Your task to perform on an android device: Open calendar and show me the third week of next month Image 0: 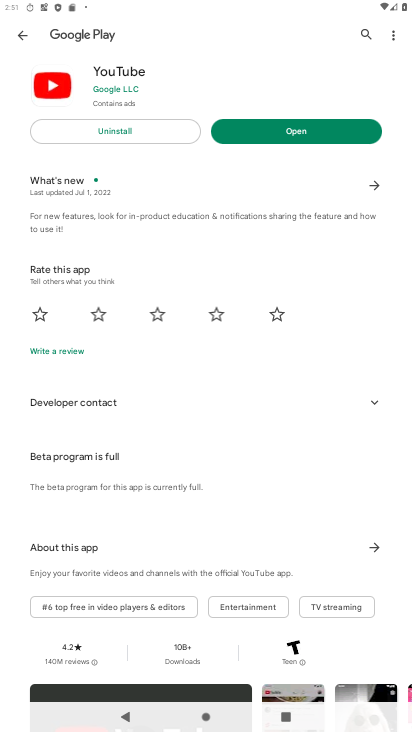
Step 0: press home button
Your task to perform on an android device: Open calendar and show me the third week of next month Image 1: 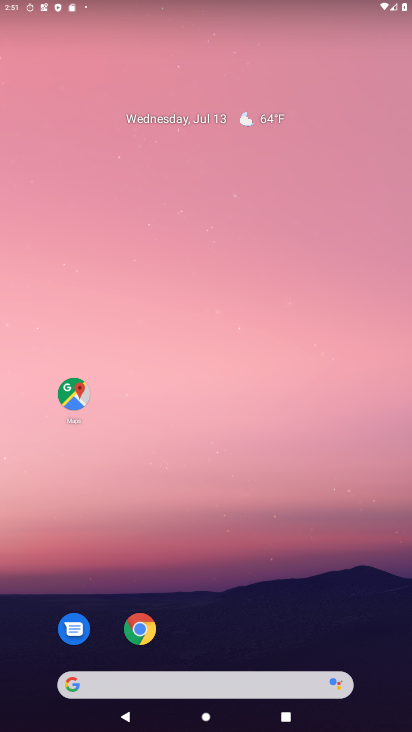
Step 1: drag from (305, 662) to (352, 32)
Your task to perform on an android device: Open calendar and show me the third week of next month Image 2: 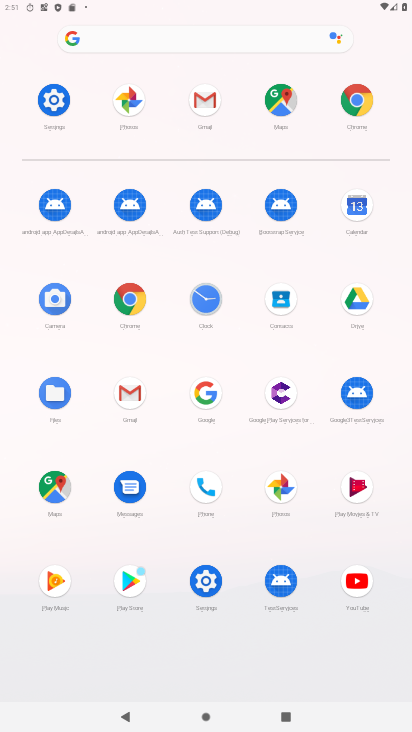
Step 2: click (354, 212)
Your task to perform on an android device: Open calendar and show me the third week of next month Image 3: 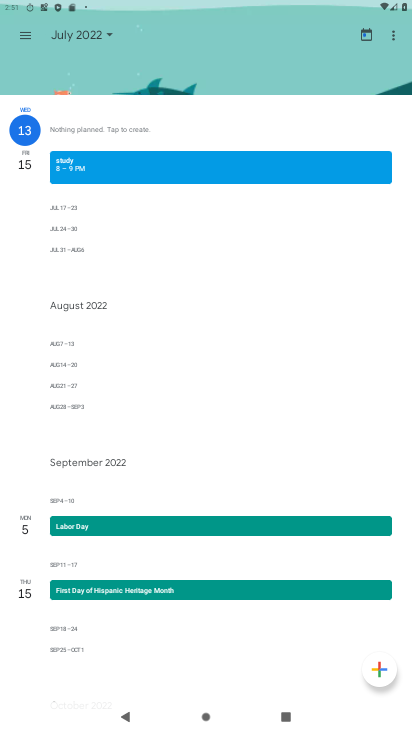
Step 3: click (102, 32)
Your task to perform on an android device: Open calendar and show me the third week of next month Image 4: 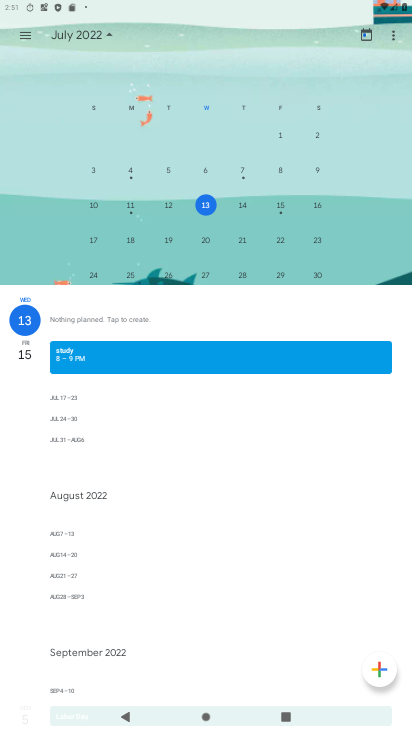
Step 4: drag from (342, 164) to (56, 192)
Your task to perform on an android device: Open calendar and show me the third week of next month Image 5: 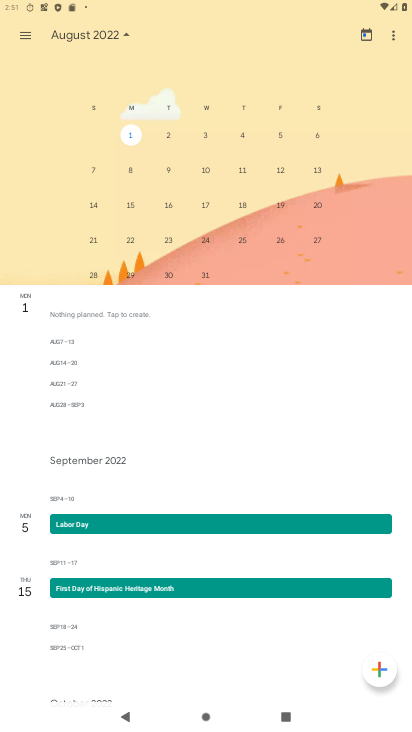
Step 5: click (203, 179)
Your task to perform on an android device: Open calendar and show me the third week of next month Image 6: 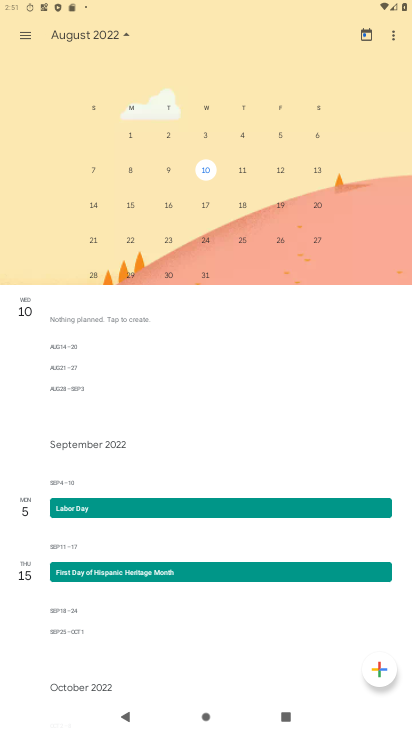
Step 6: click (32, 34)
Your task to perform on an android device: Open calendar and show me the third week of next month Image 7: 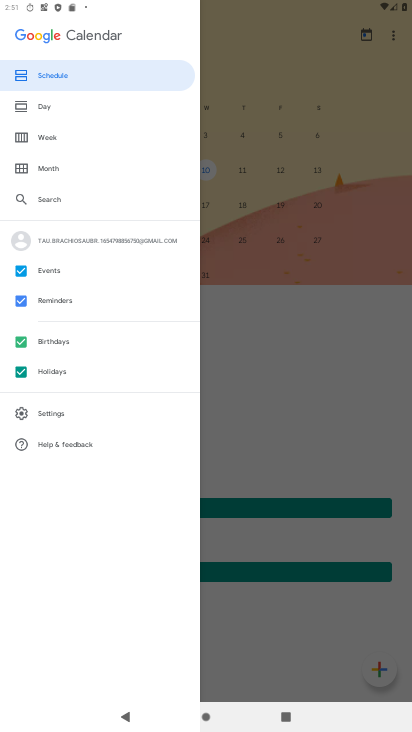
Step 7: click (49, 111)
Your task to perform on an android device: Open calendar and show me the third week of next month Image 8: 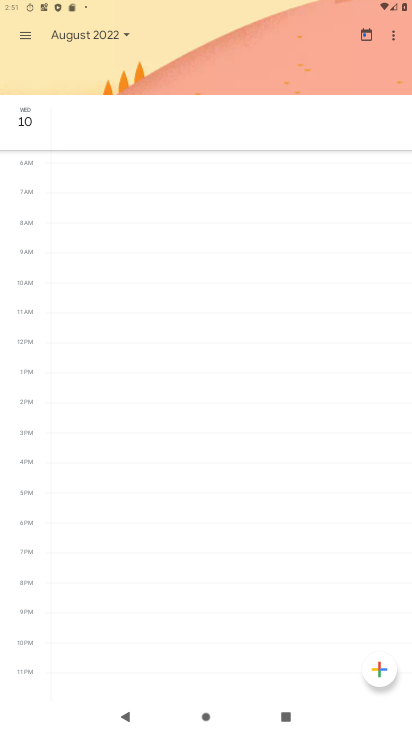
Step 8: click (16, 34)
Your task to perform on an android device: Open calendar and show me the third week of next month Image 9: 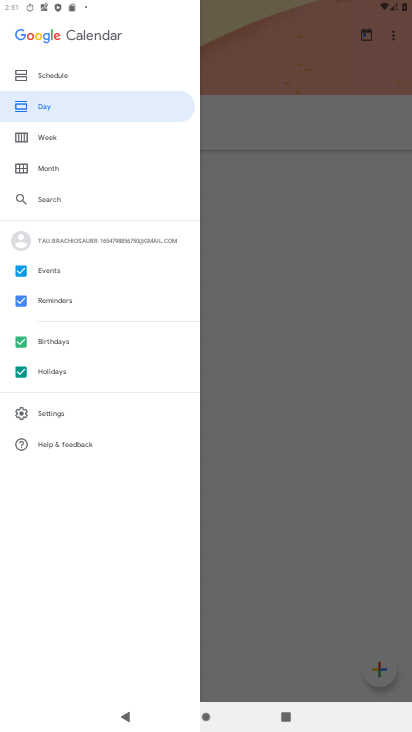
Step 9: click (53, 142)
Your task to perform on an android device: Open calendar and show me the third week of next month Image 10: 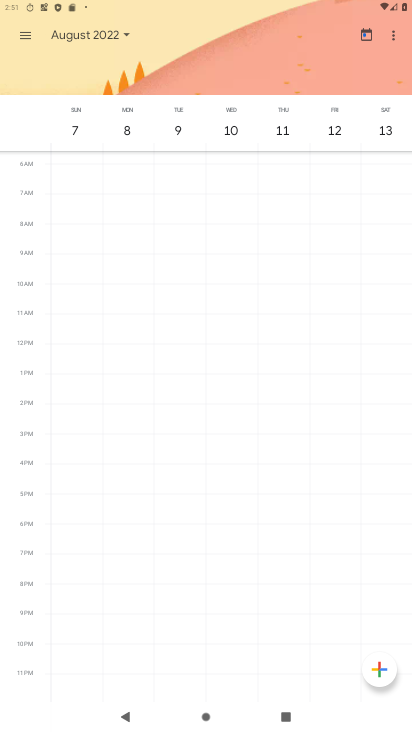
Step 10: task complete